Your task to perform on an android device: Open the calendar and show me this week's events? Image 0: 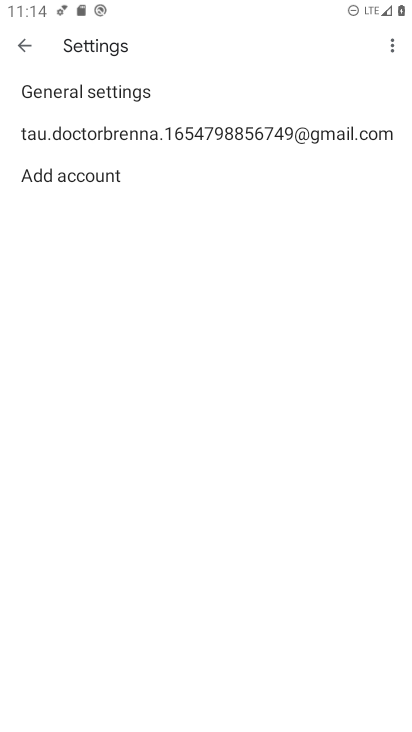
Step 0: press home button
Your task to perform on an android device: Open the calendar and show me this week's events? Image 1: 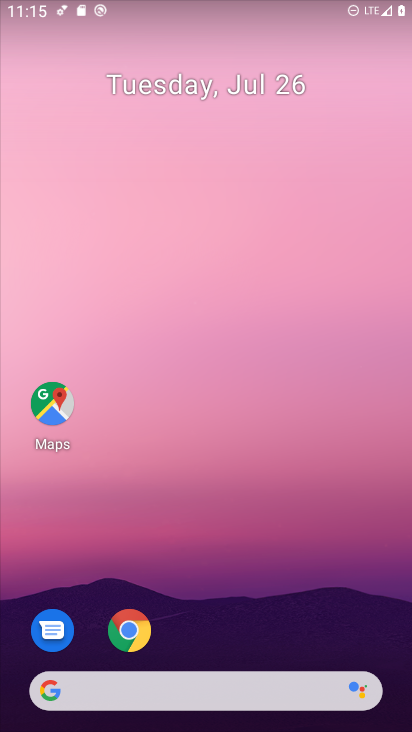
Step 1: drag from (379, 649) to (345, 207)
Your task to perform on an android device: Open the calendar and show me this week's events? Image 2: 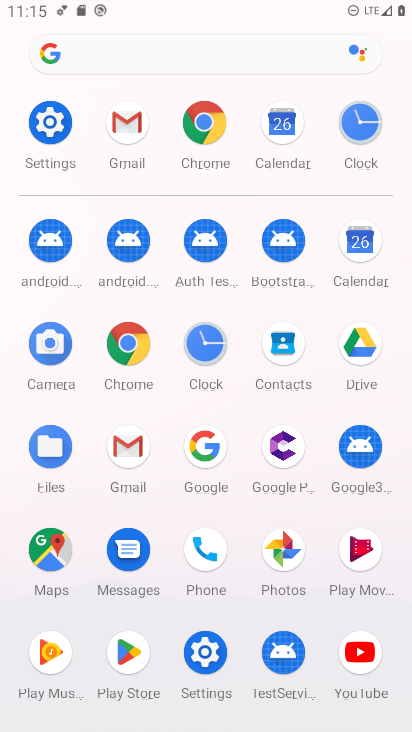
Step 2: click (361, 243)
Your task to perform on an android device: Open the calendar and show me this week's events? Image 3: 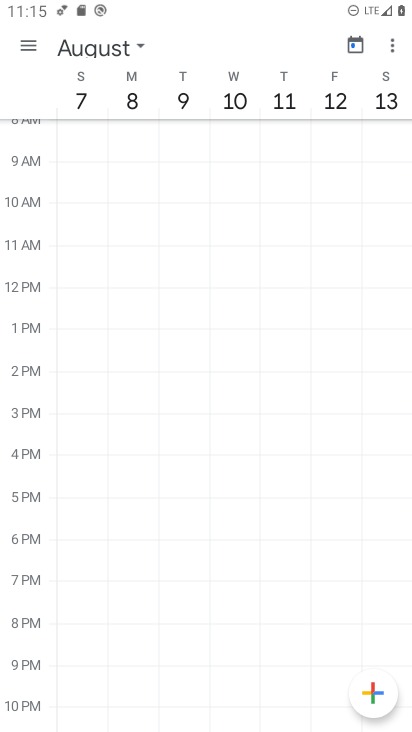
Step 3: click (131, 45)
Your task to perform on an android device: Open the calendar and show me this week's events? Image 4: 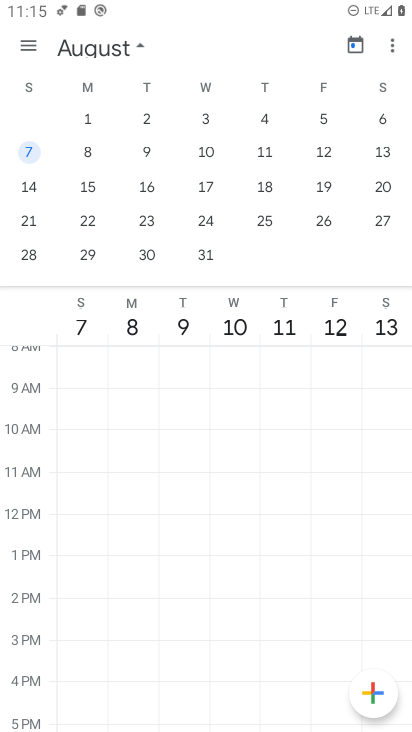
Step 4: drag from (27, 222) to (402, 238)
Your task to perform on an android device: Open the calendar and show me this week's events? Image 5: 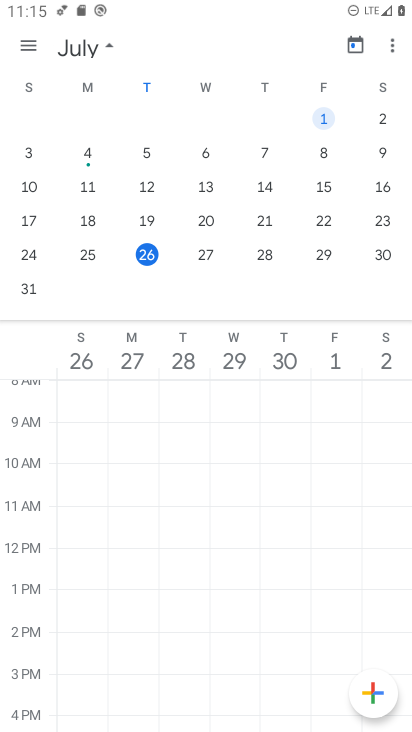
Step 5: click (145, 251)
Your task to perform on an android device: Open the calendar and show me this week's events? Image 6: 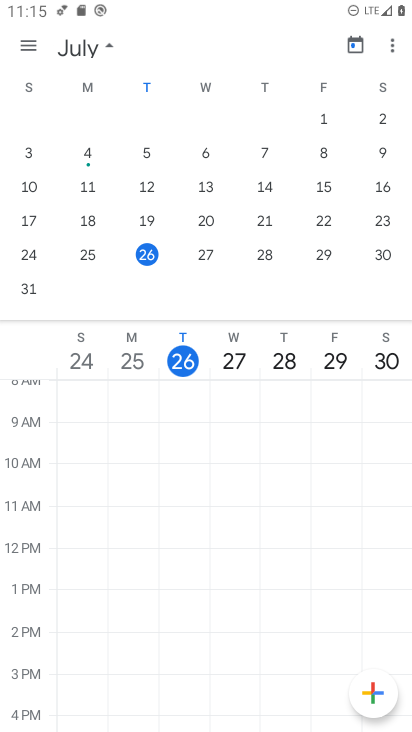
Step 6: drag from (178, 532) to (204, 270)
Your task to perform on an android device: Open the calendar and show me this week's events? Image 7: 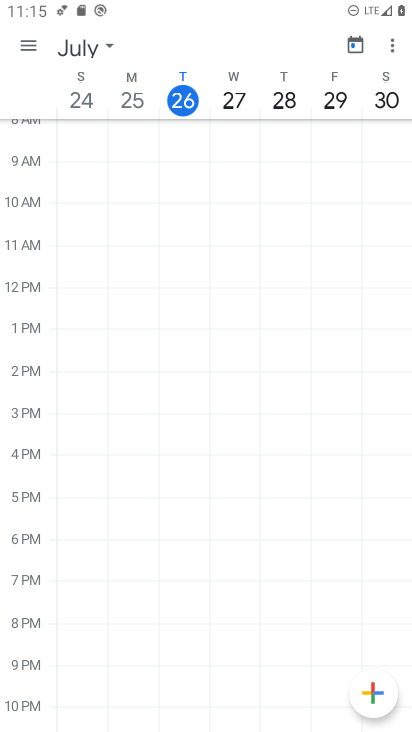
Step 7: drag from (204, 270) to (196, 567)
Your task to perform on an android device: Open the calendar and show me this week's events? Image 8: 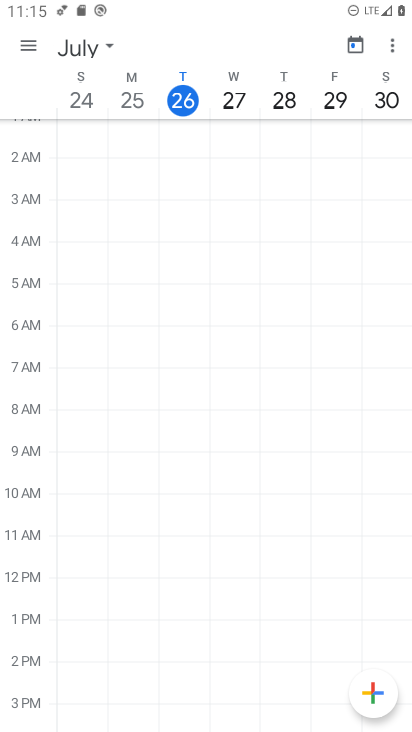
Step 8: click (177, 335)
Your task to perform on an android device: Open the calendar and show me this week's events? Image 9: 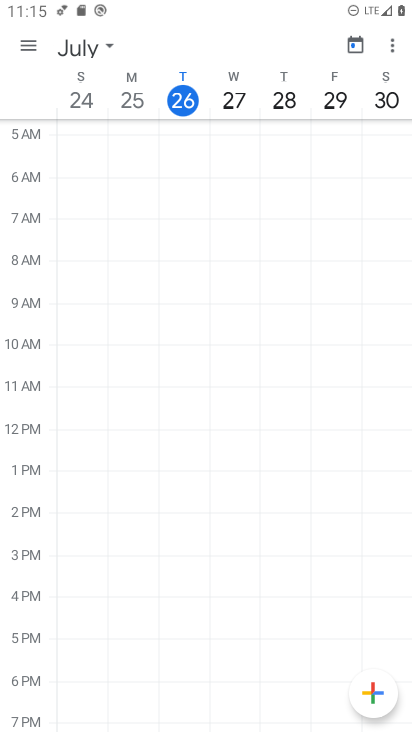
Step 9: task complete